Your task to perform on an android device: open a bookmark in the chrome app Image 0: 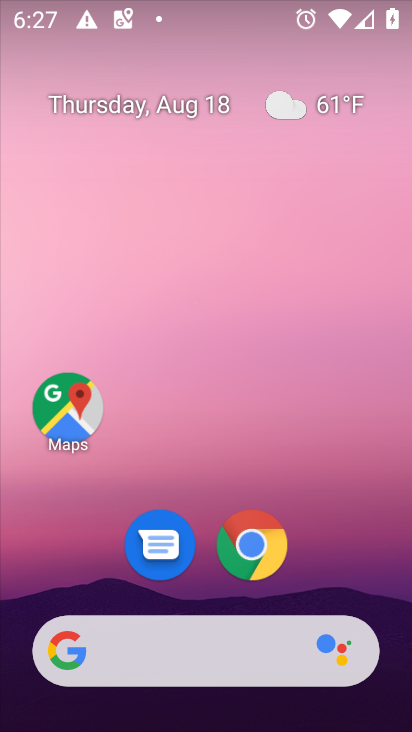
Step 0: click (260, 548)
Your task to perform on an android device: open a bookmark in the chrome app Image 1: 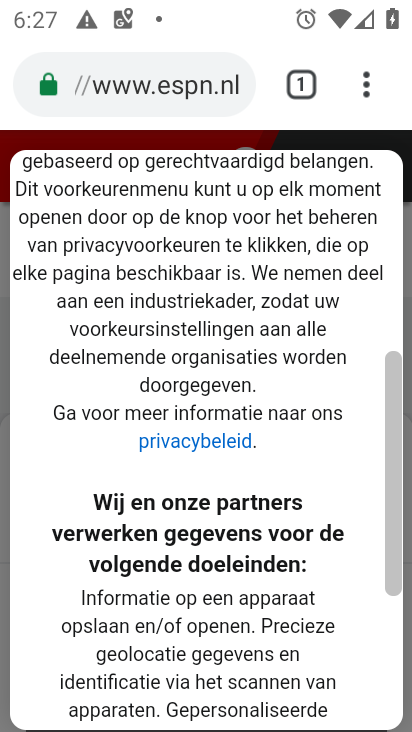
Step 1: click (368, 84)
Your task to perform on an android device: open a bookmark in the chrome app Image 2: 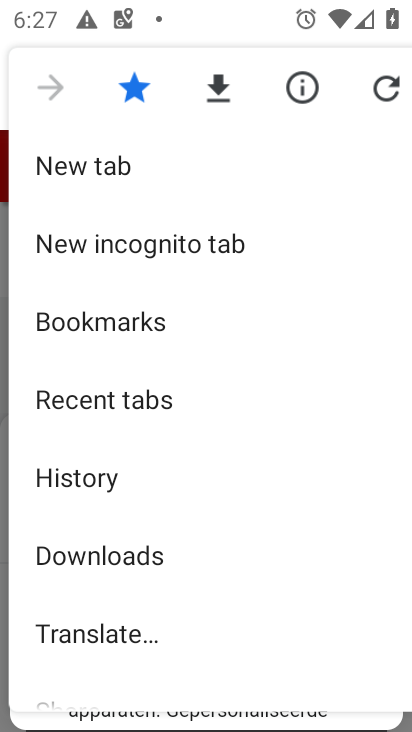
Step 2: click (94, 327)
Your task to perform on an android device: open a bookmark in the chrome app Image 3: 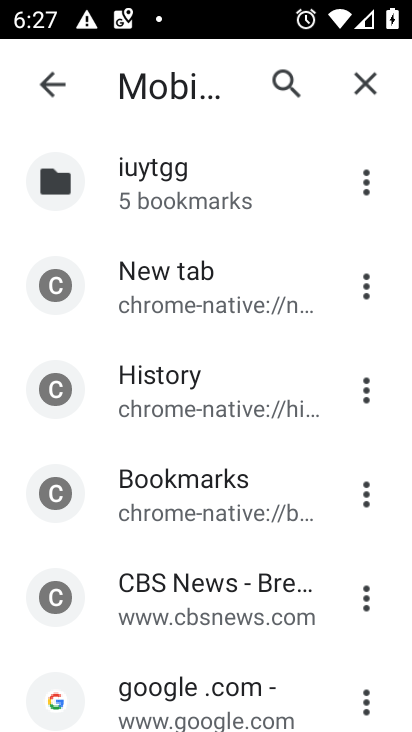
Step 3: task complete